Your task to perform on an android device: change the clock display to analog Image 0: 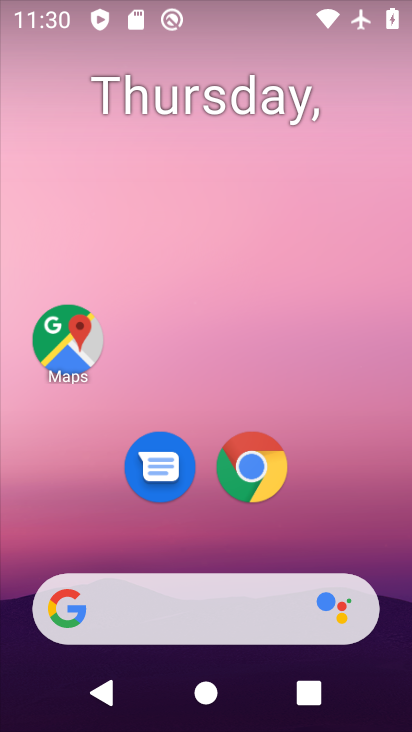
Step 0: drag from (346, 551) to (336, 49)
Your task to perform on an android device: change the clock display to analog Image 1: 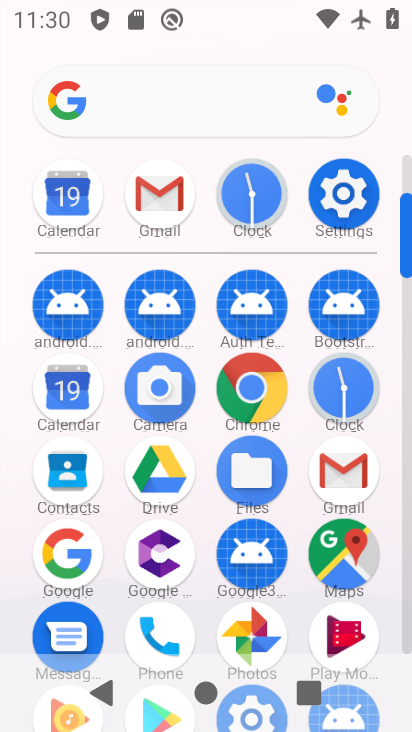
Step 1: click (255, 203)
Your task to perform on an android device: change the clock display to analog Image 2: 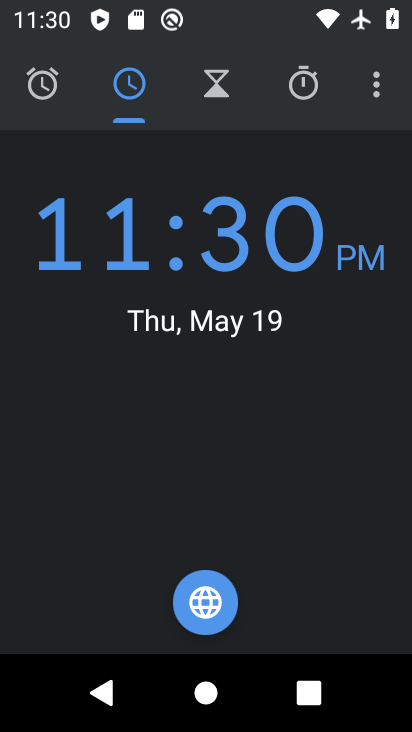
Step 2: click (379, 89)
Your task to perform on an android device: change the clock display to analog Image 3: 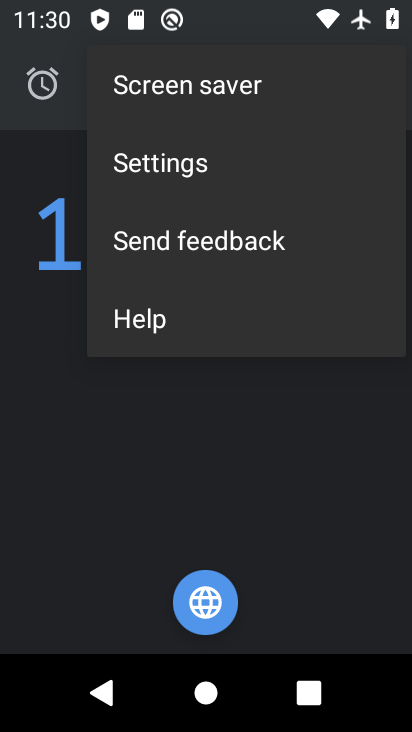
Step 3: click (165, 172)
Your task to perform on an android device: change the clock display to analog Image 4: 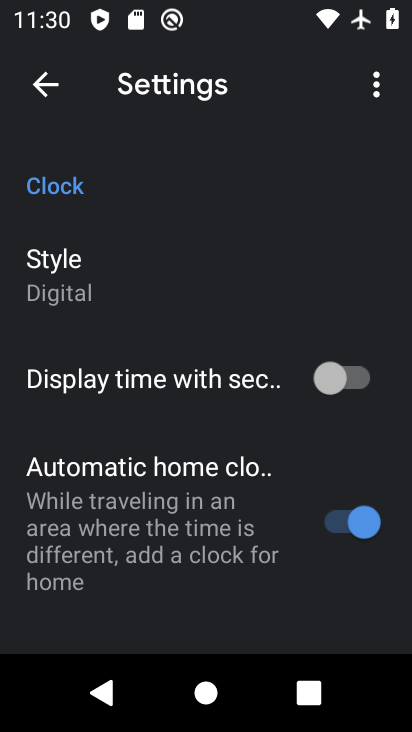
Step 4: click (50, 293)
Your task to perform on an android device: change the clock display to analog Image 5: 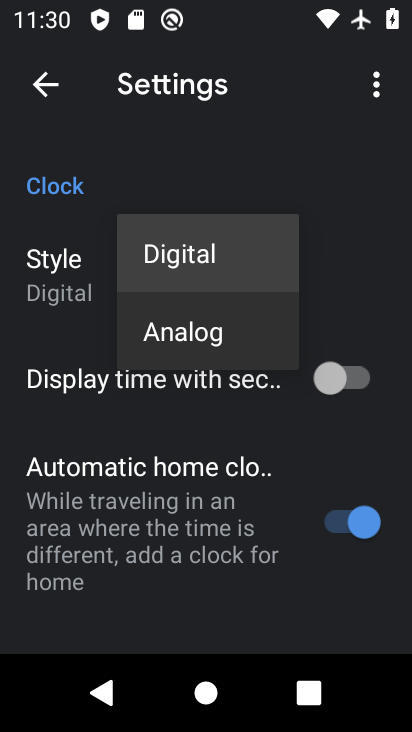
Step 5: click (167, 342)
Your task to perform on an android device: change the clock display to analog Image 6: 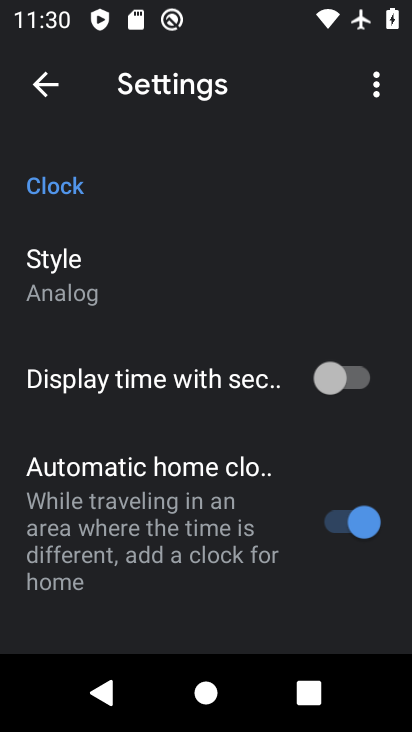
Step 6: task complete